Your task to perform on an android device: star an email in the gmail app Image 0: 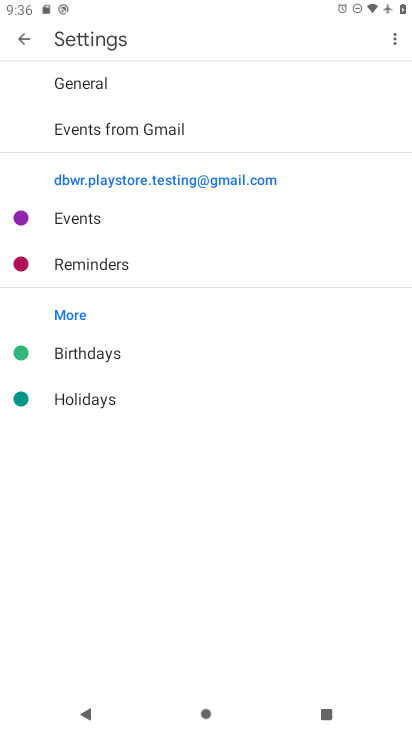
Step 0: press home button
Your task to perform on an android device: star an email in the gmail app Image 1: 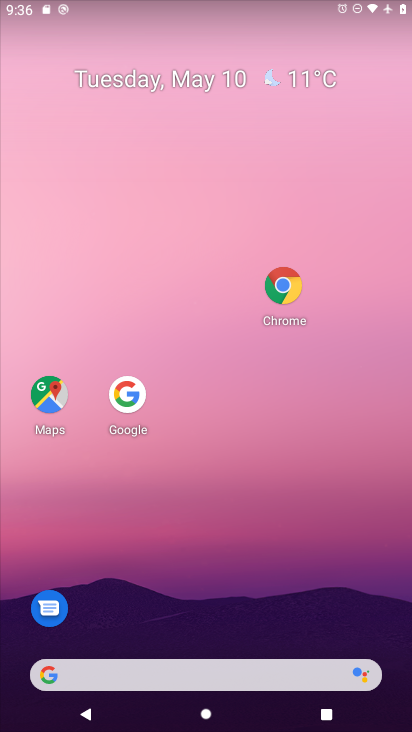
Step 1: drag from (193, 670) to (344, 193)
Your task to perform on an android device: star an email in the gmail app Image 2: 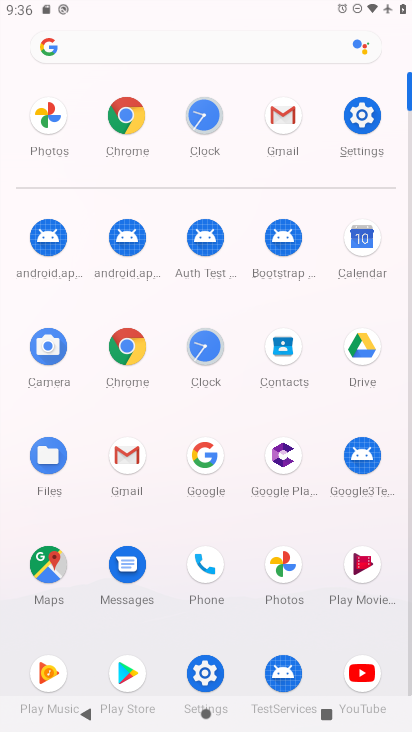
Step 2: click (281, 130)
Your task to perform on an android device: star an email in the gmail app Image 3: 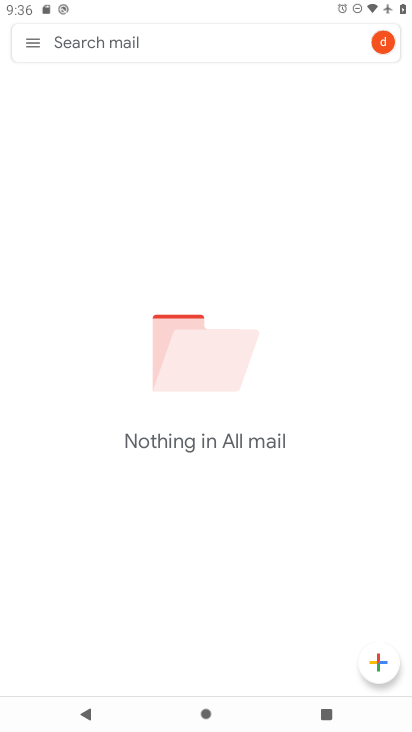
Step 3: task complete